Your task to perform on an android device: Open the phone app and click the voicemail tab. Image 0: 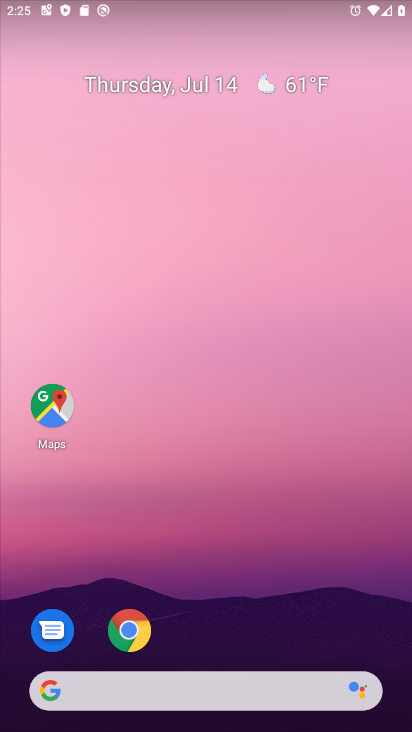
Step 0: drag from (199, 681) to (334, 1)
Your task to perform on an android device: Open the phone app and click the voicemail tab. Image 1: 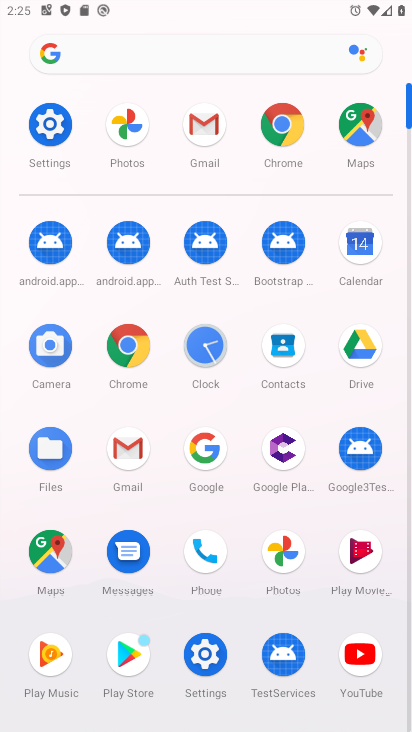
Step 1: click (199, 543)
Your task to perform on an android device: Open the phone app and click the voicemail tab. Image 2: 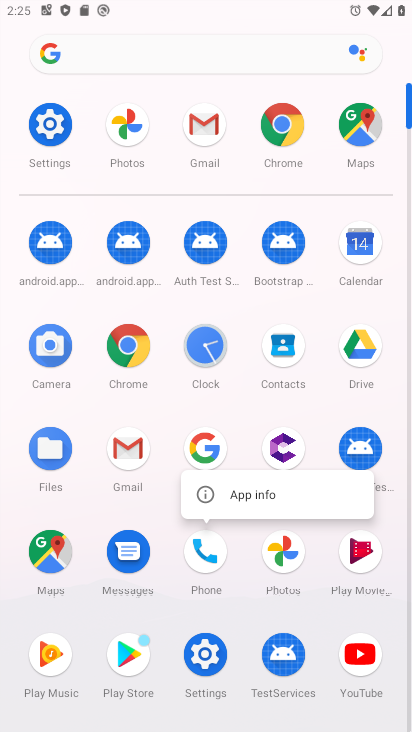
Step 2: click (201, 552)
Your task to perform on an android device: Open the phone app and click the voicemail tab. Image 3: 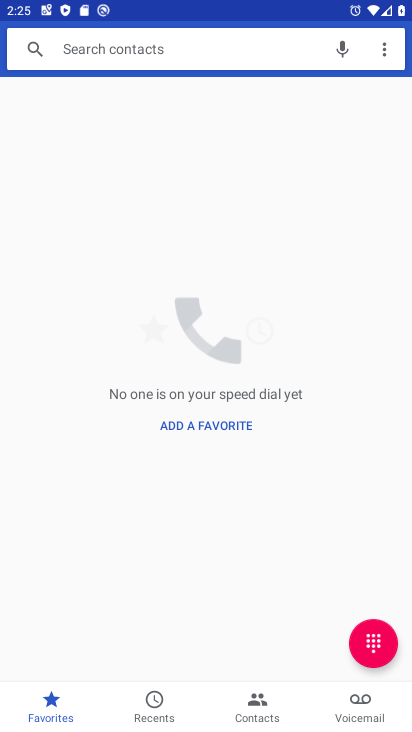
Step 3: click (374, 703)
Your task to perform on an android device: Open the phone app and click the voicemail tab. Image 4: 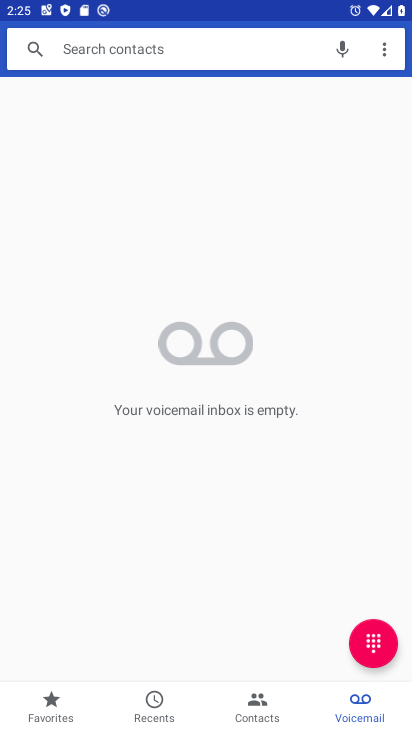
Step 4: task complete